Your task to perform on an android device: Show me popular videos on Youtube Image 0: 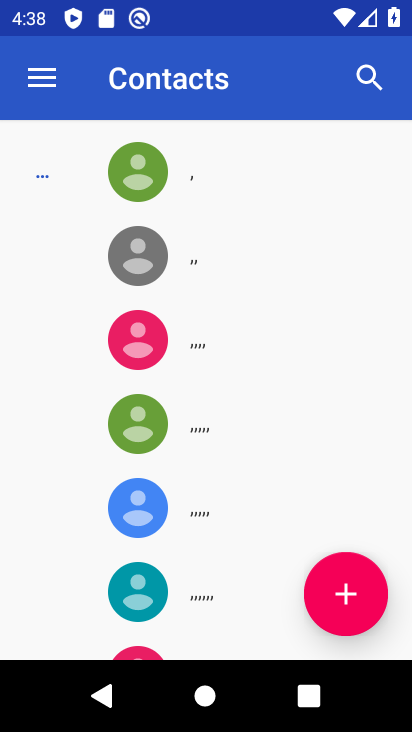
Step 0: press home button
Your task to perform on an android device: Show me popular videos on Youtube Image 1: 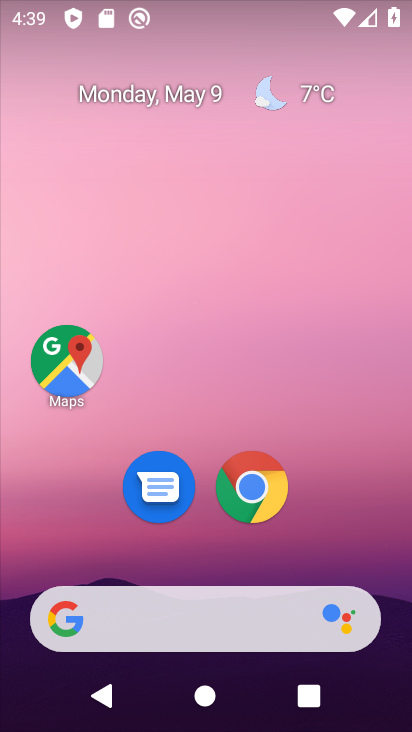
Step 1: drag from (202, 445) to (266, 90)
Your task to perform on an android device: Show me popular videos on Youtube Image 2: 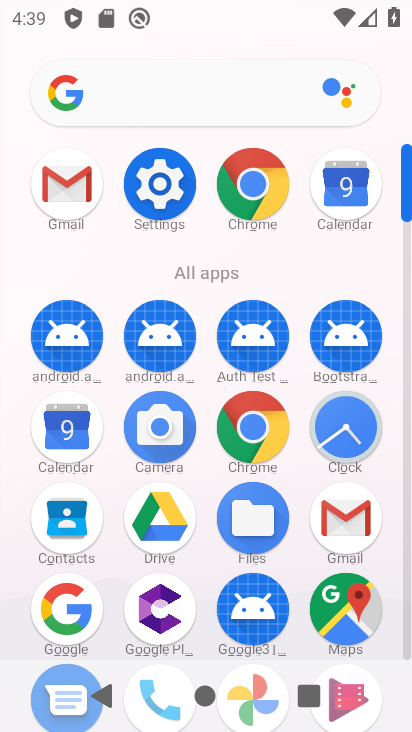
Step 2: drag from (308, 405) to (345, 36)
Your task to perform on an android device: Show me popular videos on Youtube Image 3: 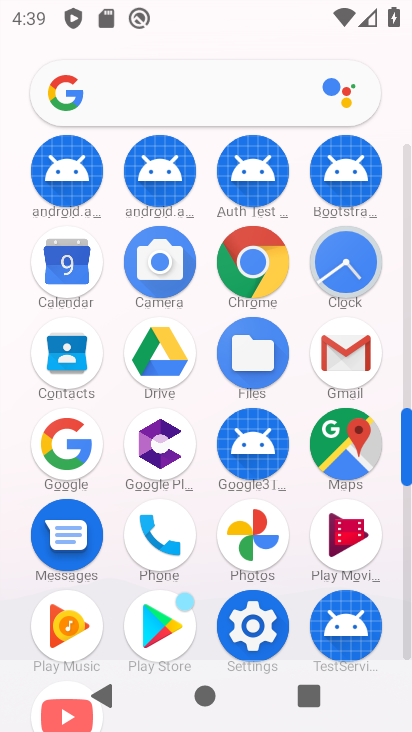
Step 3: drag from (209, 568) to (288, 175)
Your task to perform on an android device: Show me popular videos on Youtube Image 4: 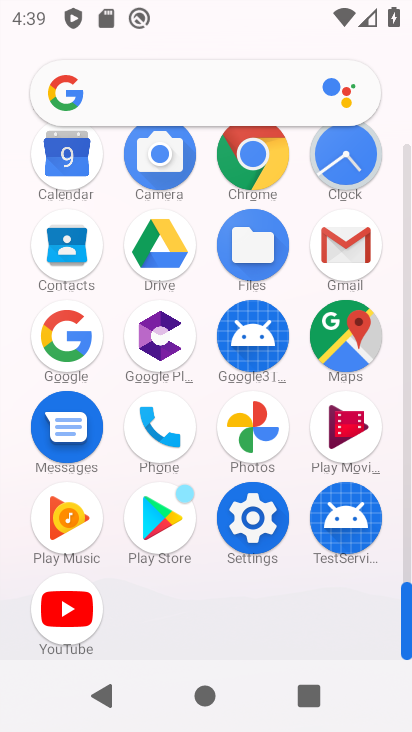
Step 4: click (66, 620)
Your task to perform on an android device: Show me popular videos on Youtube Image 5: 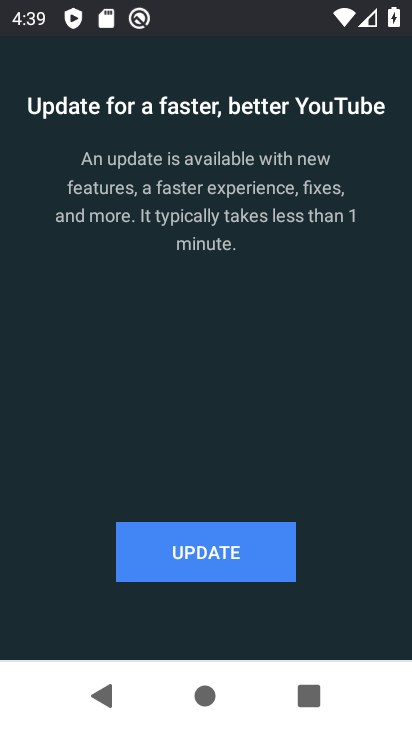
Step 5: click (291, 538)
Your task to perform on an android device: Show me popular videos on Youtube Image 6: 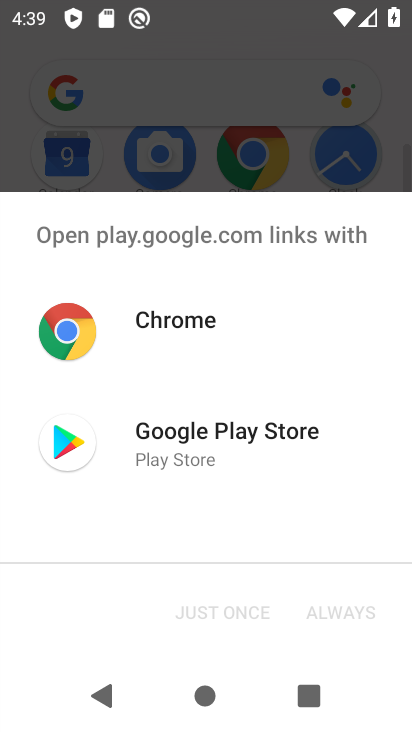
Step 6: click (347, 443)
Your task to perform on an android device: Show me popular videos on Youtube Image 7: 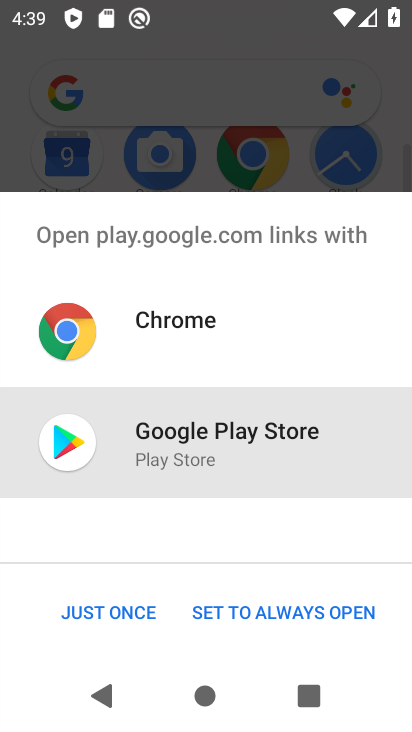
Step 7: click (117, 618)
Your task to perform on an android device: Show me popular videos on Youtube Image 8: 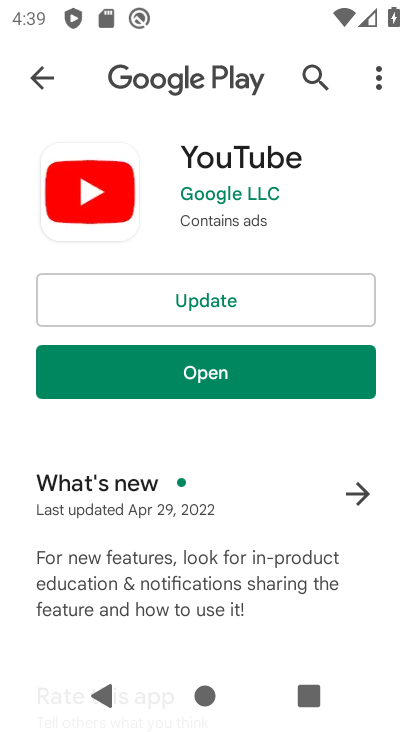
Step 8: task complete